Your task to perform on an android device: change keyboard looks Image 0: 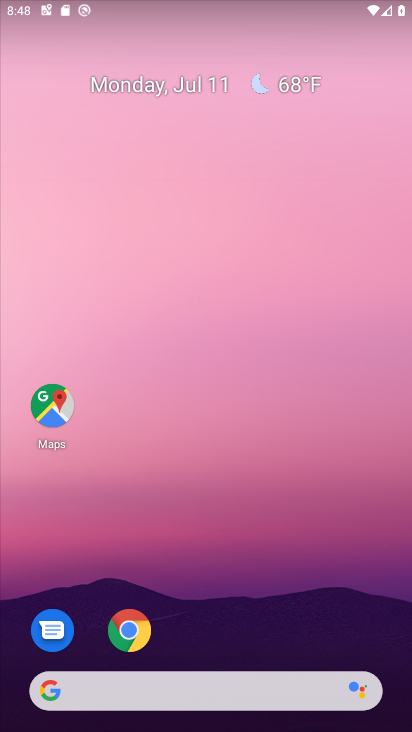
Step 0: drag from (203, 635) to (203, 8)
Your task to perform on an android device: change keyboard looks Image 1: 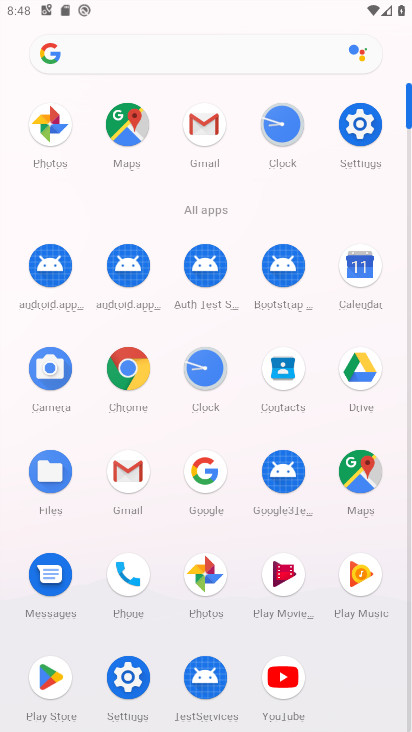
Step 1: click (123, 678)
Your task to perform on an android device: change keyboard looks Image 2: 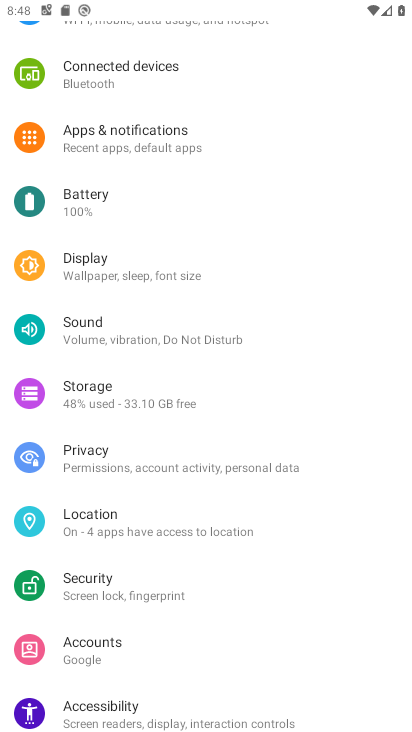
Step 2: drag from (110, 594) to (130, 149)
Your task to perform on an android device: change keyboard looks Image 3: 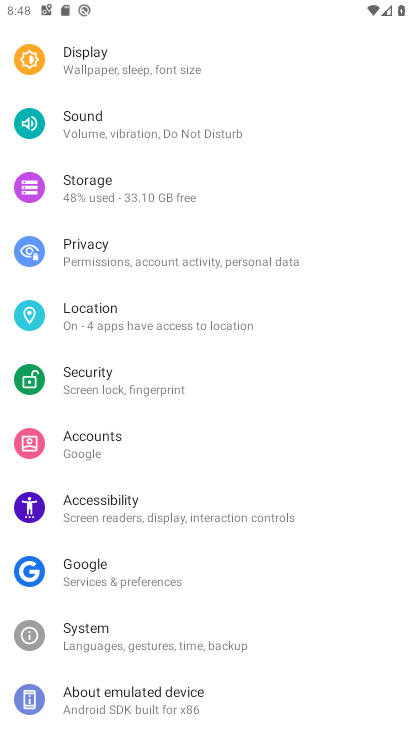
Step 3: click (115, 637)
Your task to perform on an android device: change keyboard looks Image 4: 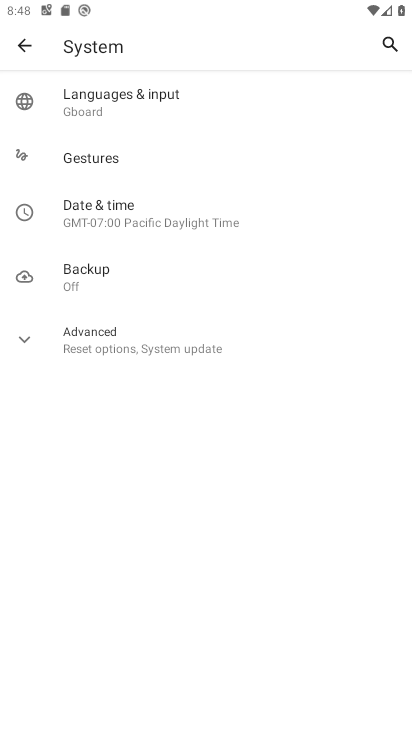
Step 4: click (98, 120)
Your task to perform on an android device: change keyboard looks Image 5: 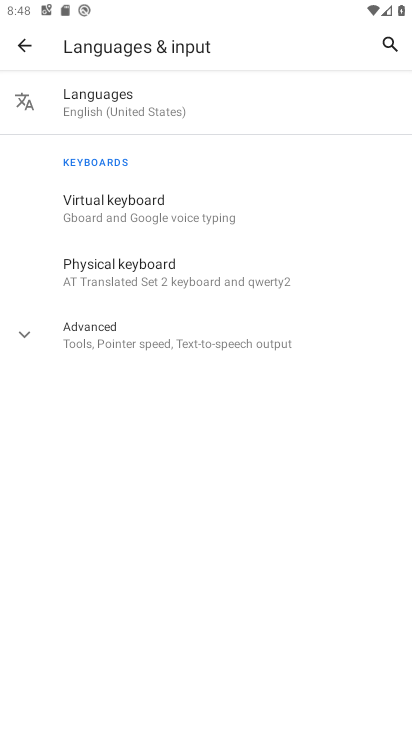
Step 5: click (143, 217)
Your task to perform on an android device: change keyboard looks Image 6: 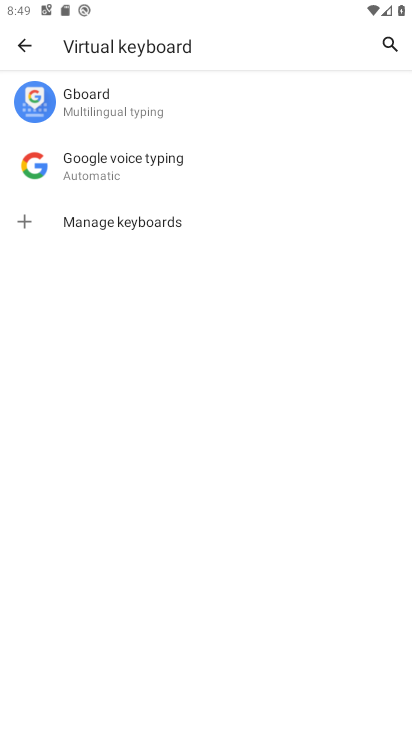
Step 6: click (113, 106)
Your task to perform on an android device: change keyboard looks Image 7: 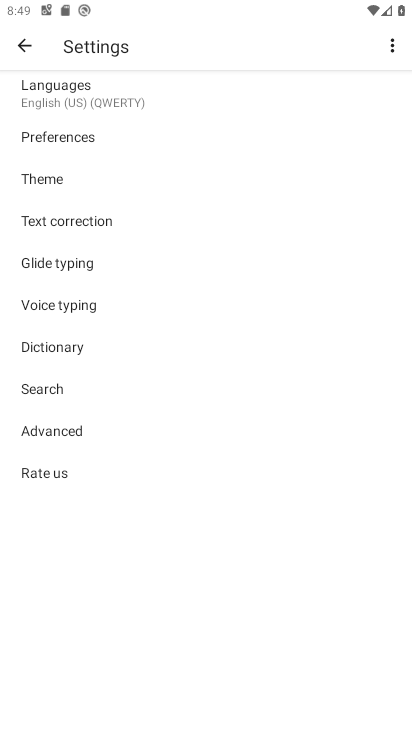
Step 7: click (44, 181)
Your task to perform on an android device: change keyboard looks Image 8: 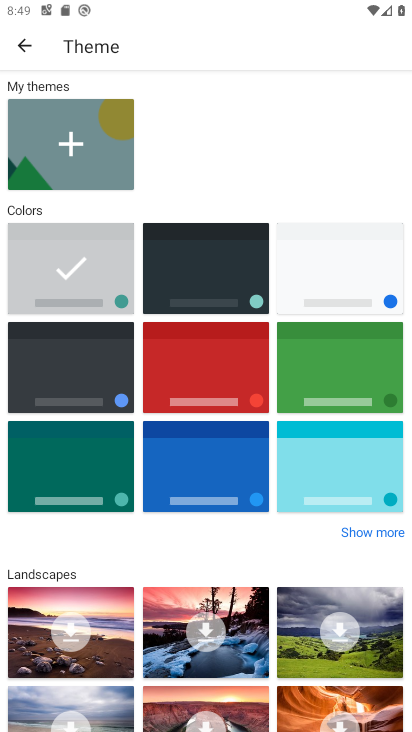
Step 8: click (204, 285)
Your task to perform on an android device: change keyboard looks Image 9: 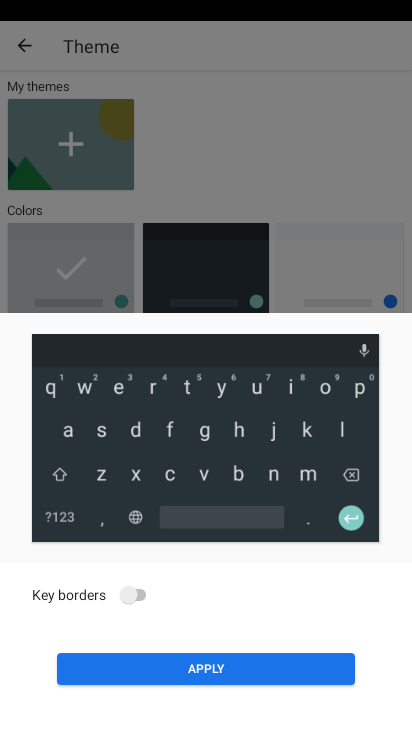
Step 9: click (199, 672)
Your task to perform on an android device: change keyboard looks Image 10: 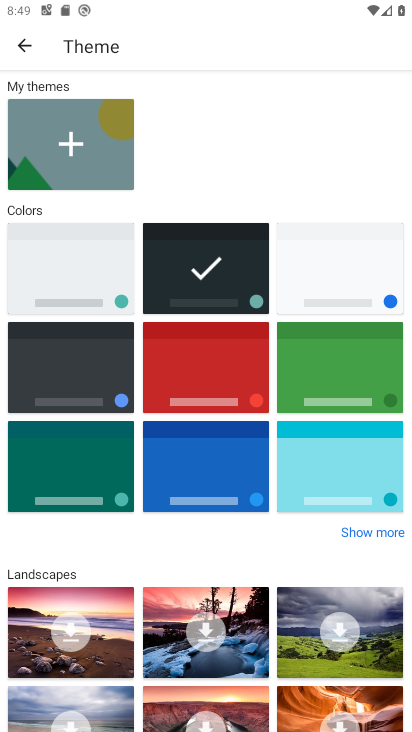
Step 10: task complete